Your task to perform on an android device: Open the map Image 0: 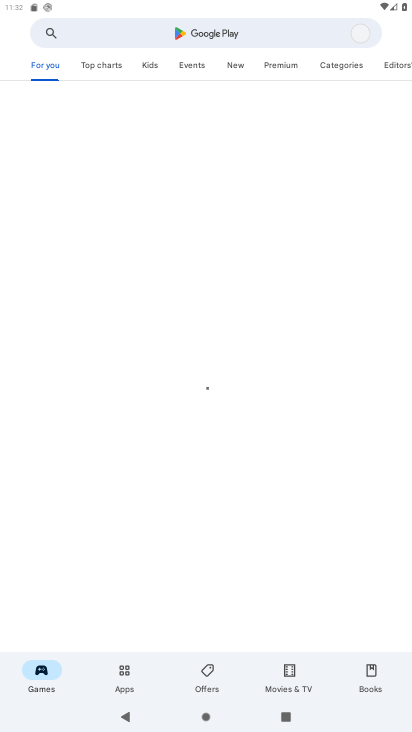
Step 0: press home button
Your task to perform on an android device: Open the map Image 1: 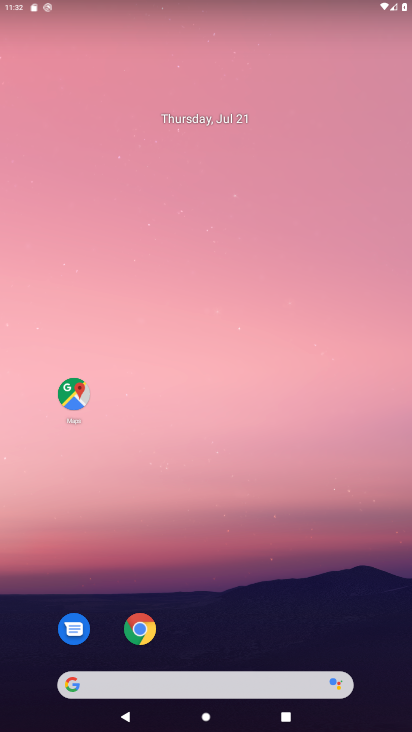
Step 1: click (86, 391)
Your task to perform on an android device: Open the map Image 2: 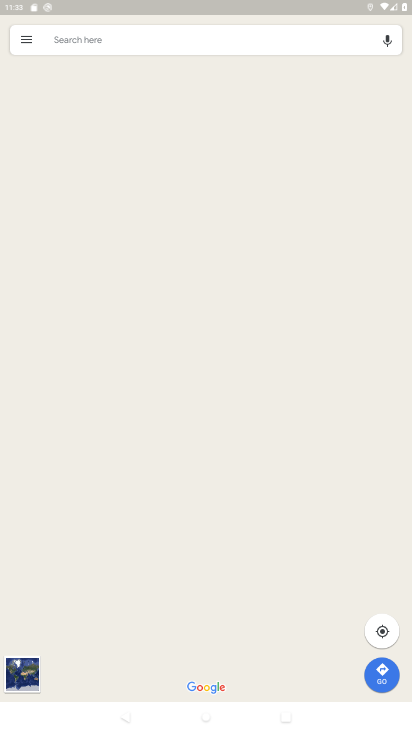
Step 2: task complete